Your task to perform on an android device: set default search engine in the chrome app Image 0: 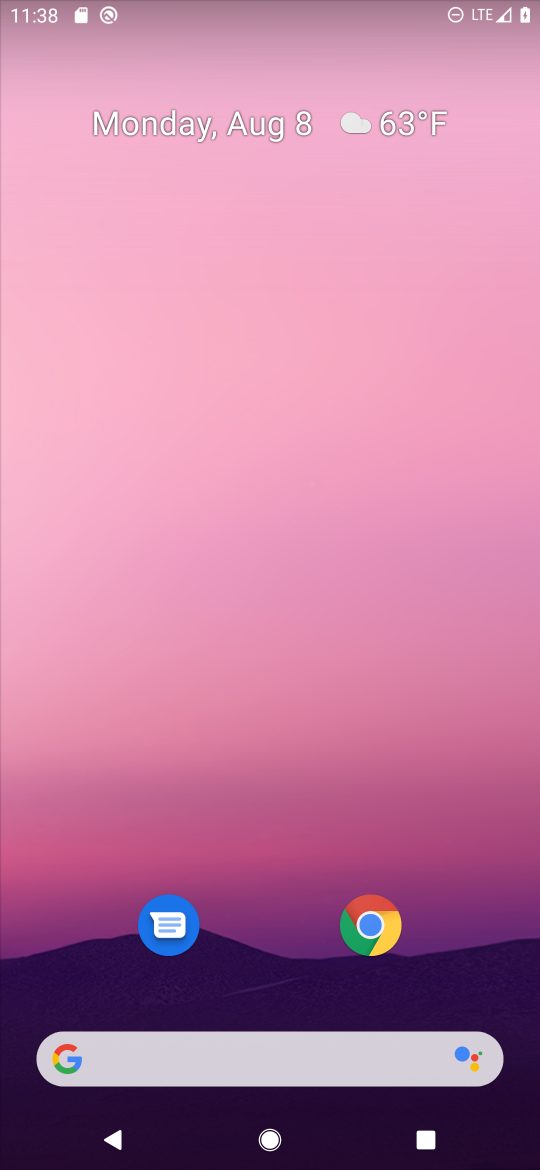
Step 0: drag from (296, 971) to (306, 442)
Your task to perform on an android device: set default search engine in the chrome app Image 1: 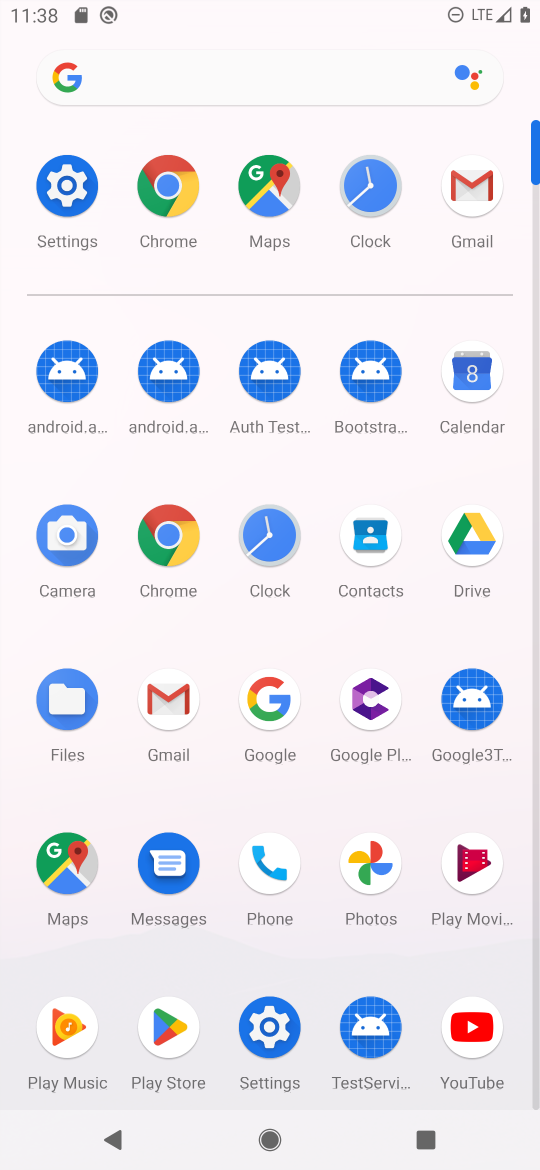
Step 1: click (178, 540)
Your task to perform on an android device: set default search engine in the chrome app Image 2: 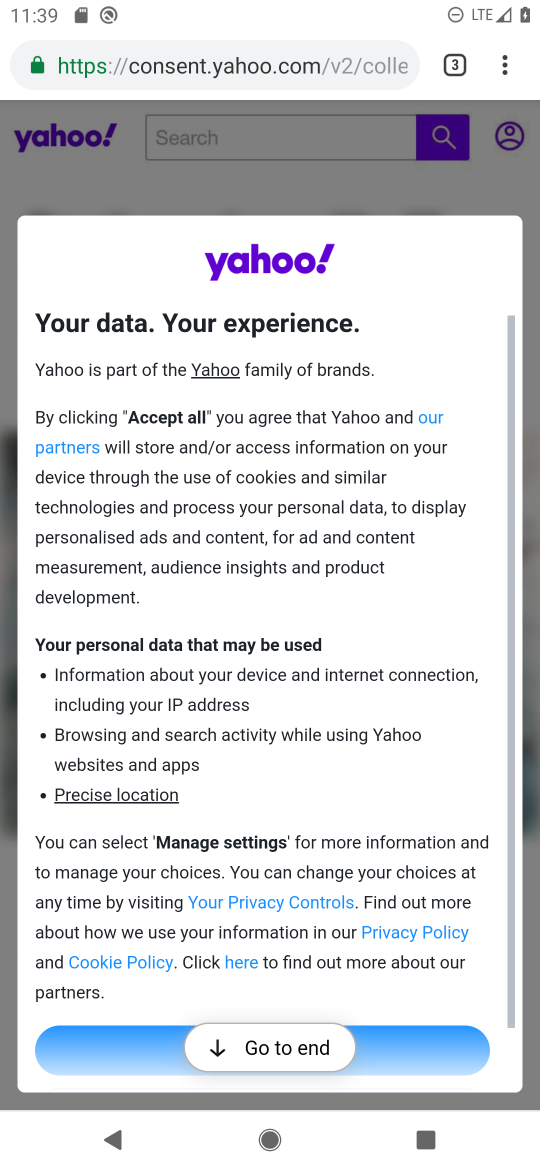
Step 2: drag from (499, 54) to (274, 863)
Your task to perform on an android device: set default search engine in the chrome app Image 3: 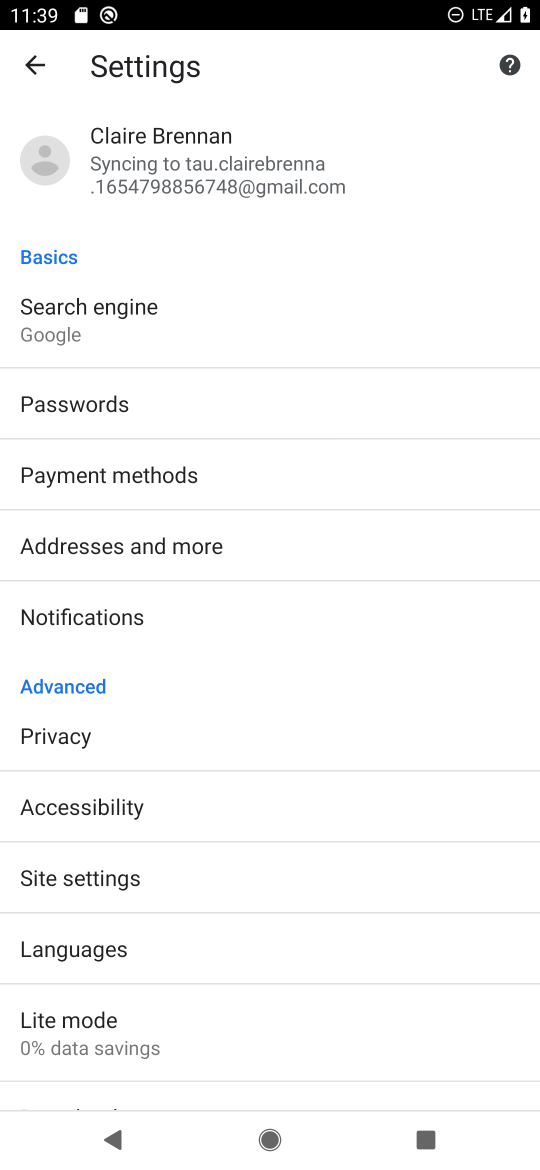
Step 3: click (122, 314)
Your task to perform on an android device: set default search engine in the chrome app Image 4: 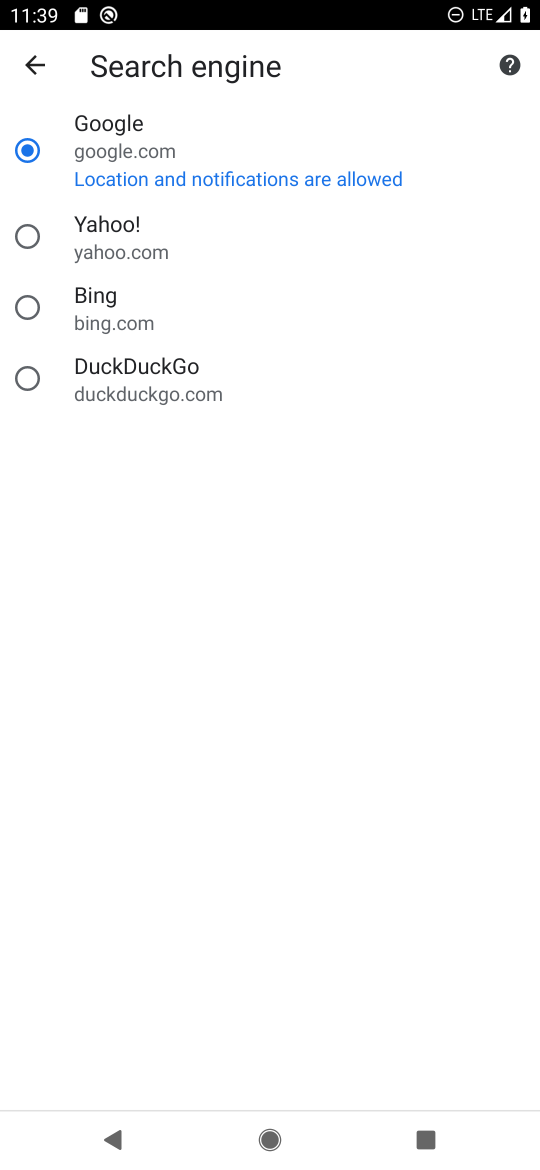
Step 4: task complete